Your task to perform on an android device: move a message to another label in the gmail app Image 0: 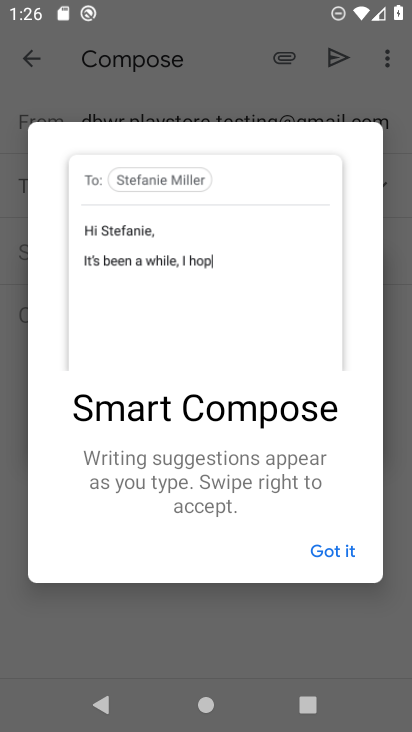
Step 0: press home button
Your task to perform on an android device: move a message to another label in the gmail app Image 1: 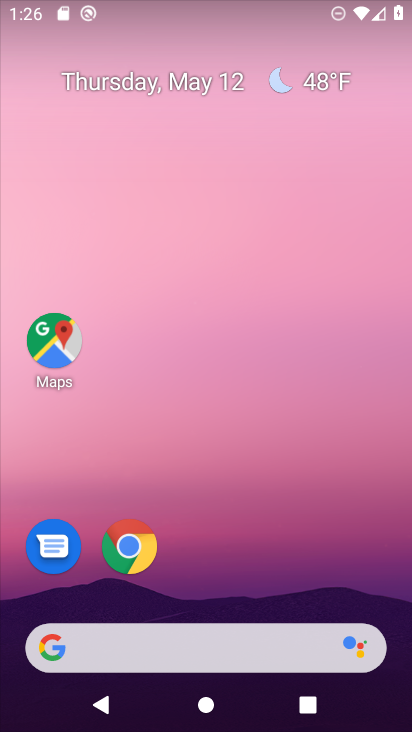
Step 1: drag from (238, 670) to (328, 307)
Your task to perform on an android device: move a message to another label in the gmail app Image 2: 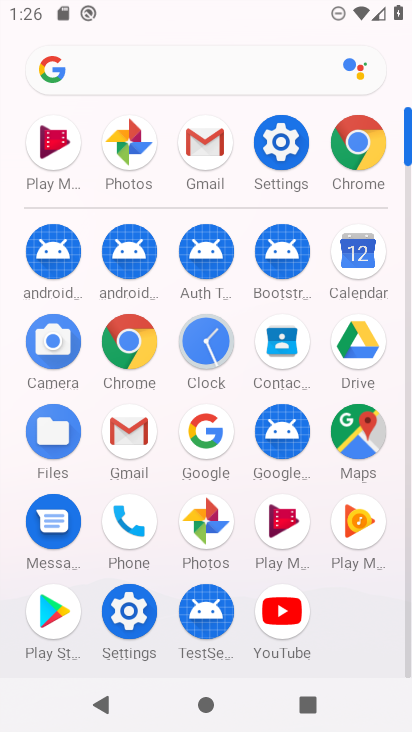
Step 2: click (119, 415)
Your task to perform on an android device: move a message to another label in the gmail app Image 3: 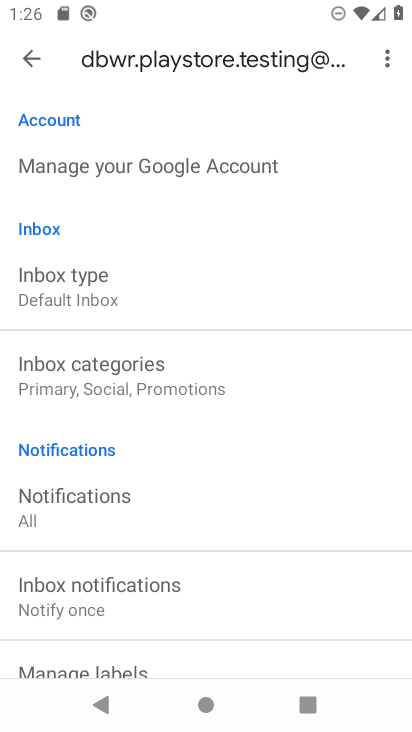
Step 3: click (107, 661)
Your task to perform on an android device: move a message to another label in the gmail app Image 4: 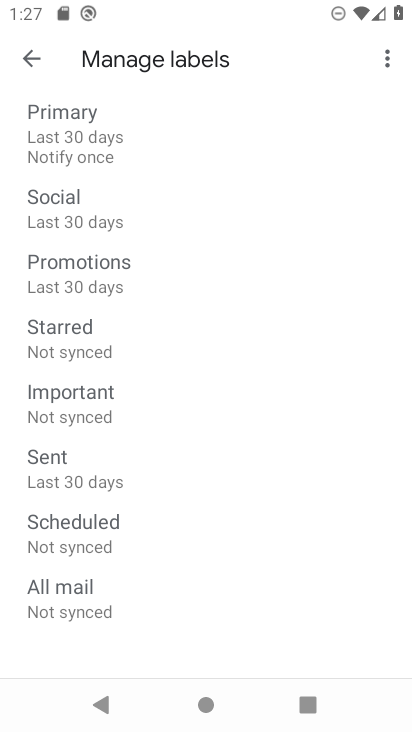
Step 4: click (124, 345)
Your task to perform on an android device: move a message to another label in the gmail app Image 5: 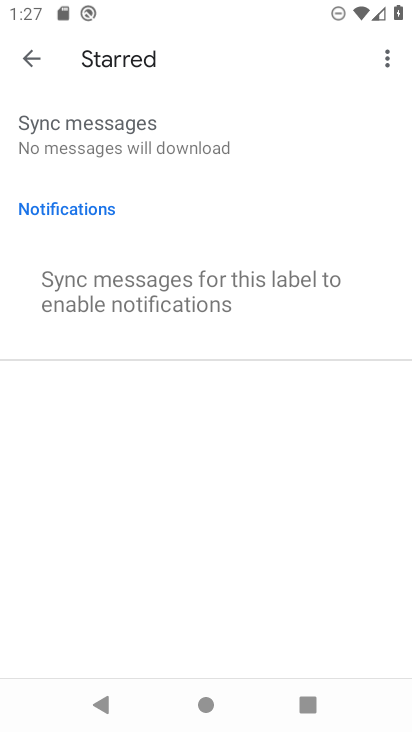
Step 5: task complete